Your task to perform on an android device: turn on improve location accuracy Image 0: 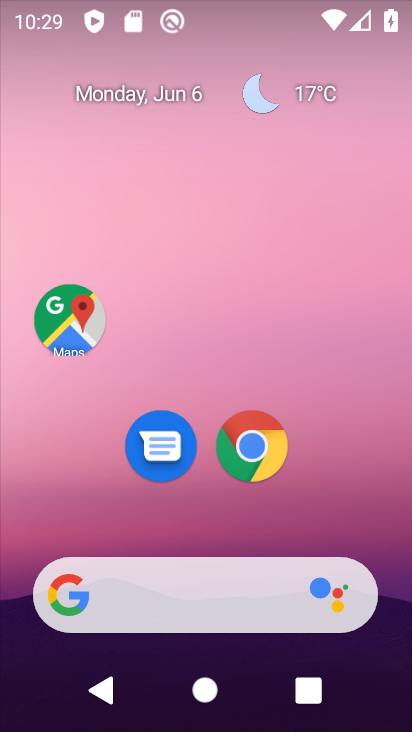
Step 0: drag from (370, 560) to (298, 31)
Your task to perform on an android device: turn on improve location accuracy Image 1: 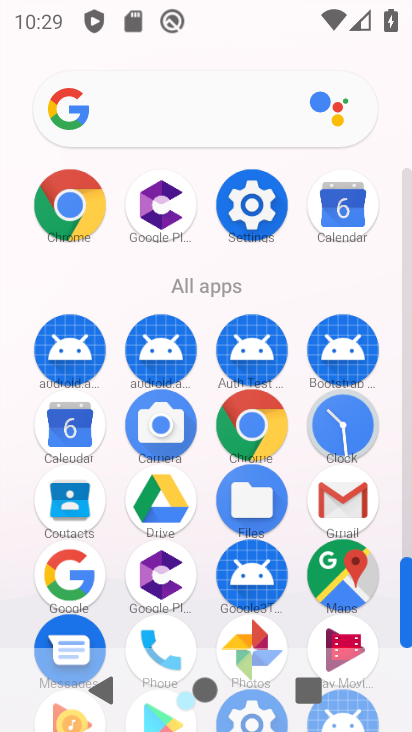
Step 1: drag from (13, 567) to (19, 198)
Your task to perform on an android device: turn on improve location accuracy Image 2: 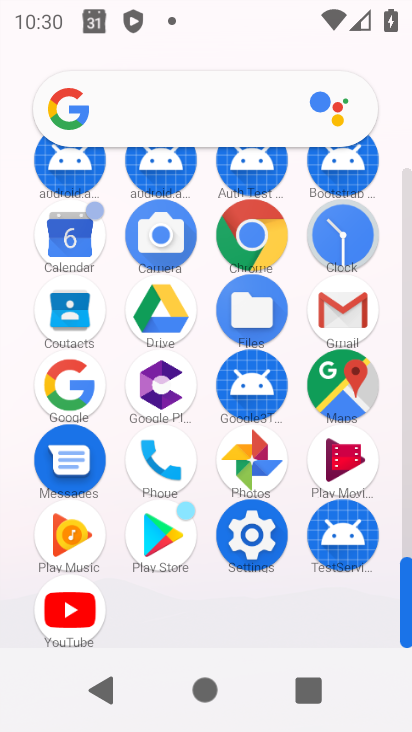
Step 2: click (247, 528)
Your task to perform on an android device: turn on improve location accuracy Image 3: 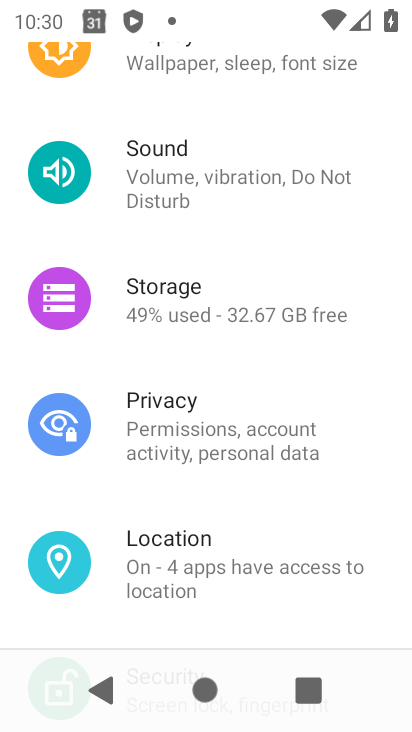
Step 3: click (208, 569)
Your task to perform on an android device: turn on improve location accuracy Image 4: 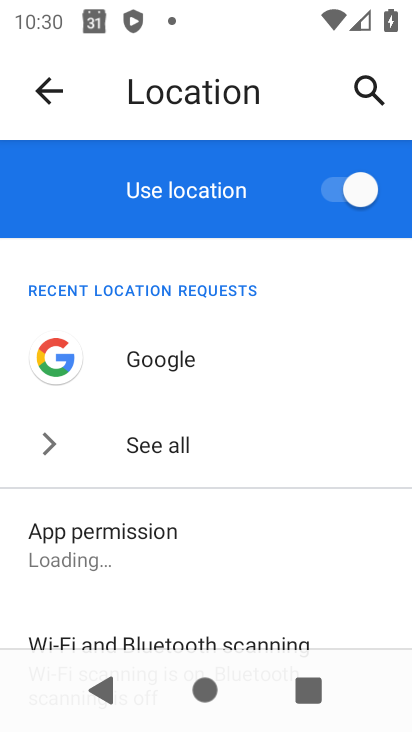
Step 4: drag from (264, 608) to (264, 277)
Your task to perform on an android device: turn on improve location accuracy Image 5: 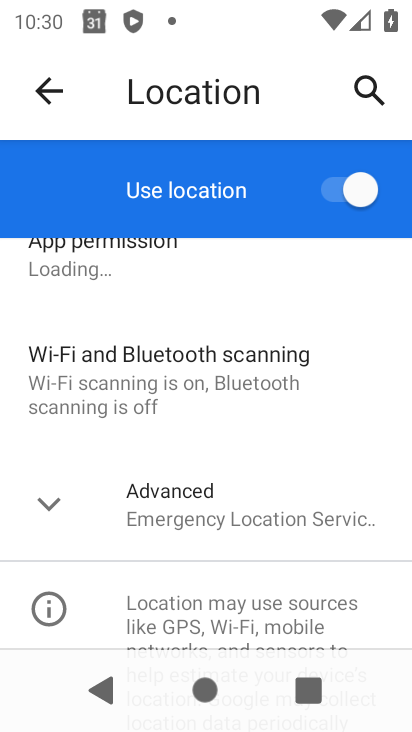
Step 5: click (71, 485)
Your task to perform on an android device: turn on improve location accuracy Image 6: 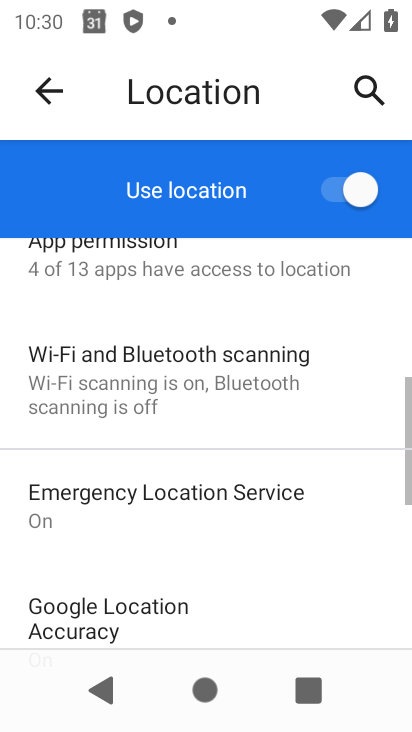
Step 6: drag from (231, 592) to (239, 302)
Your task to perform on an android device: turn on improve location accuracy Image 7: 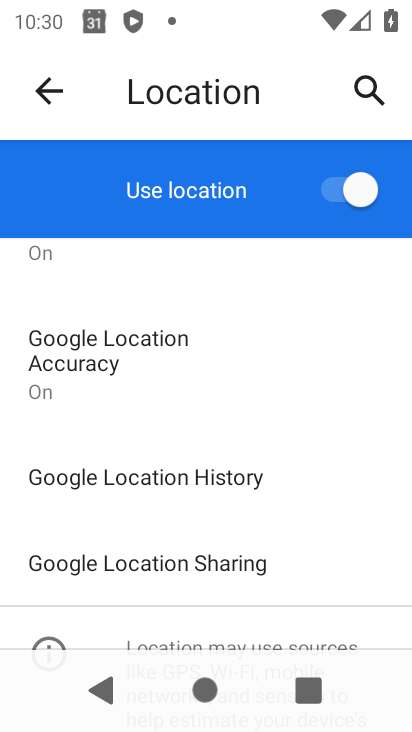
Step 7: click (120, 349)
Your task to perform on an android device: turn on improve location accuracy Image 8: 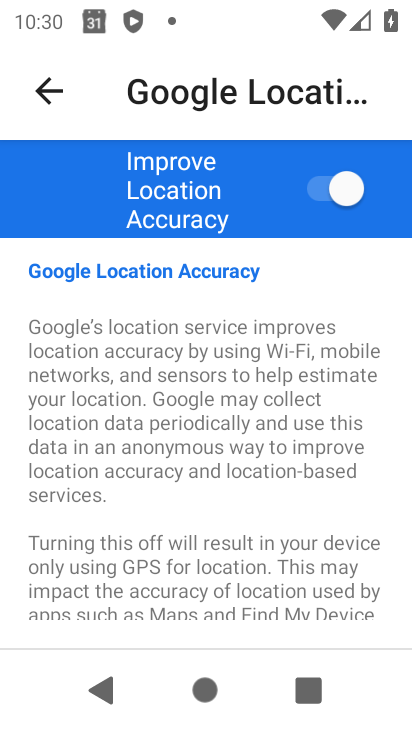
Step 8: task complete